Your task to perform on an android device: add a label to a message in the gmail app Image 0: 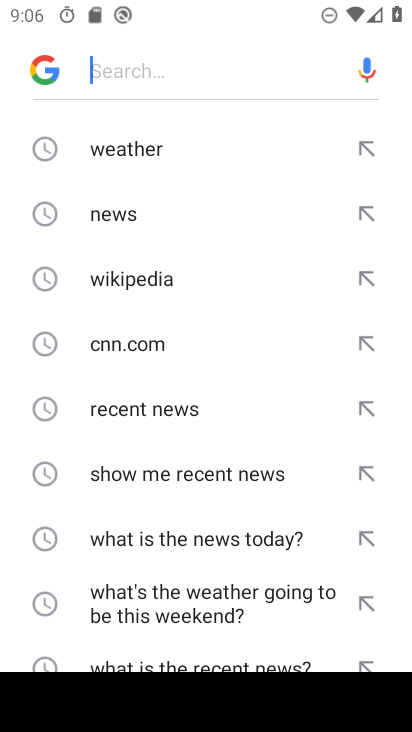
Step 0: press home button
Your task to perform on an android device: add a label to a message in the gmail app Image 1: 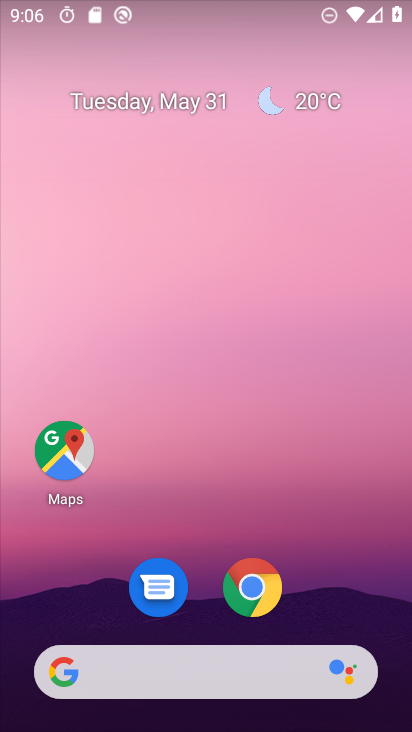
Step 1: drag from (204, 609) to (246, 96)
Your task to perform on an android device: add a label to a message in the gmail app Image 2: 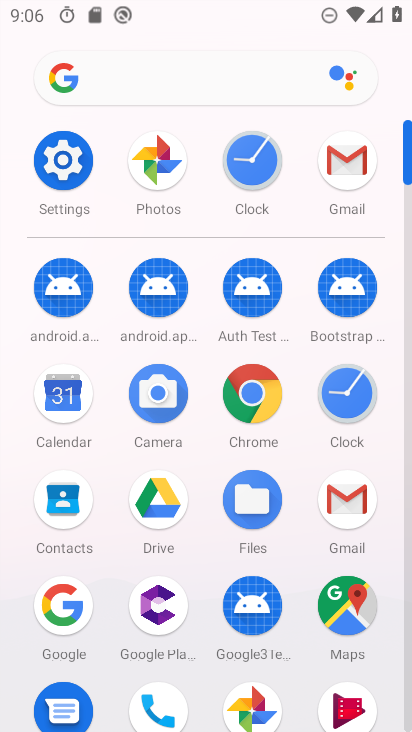
Step 2: click (354, 158)
Your task to perform on an android device: add a label to a message in the gmail app Image 3: 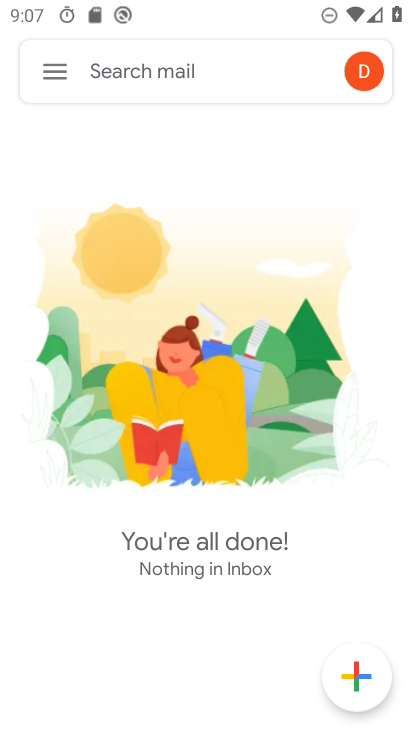
Step 3: task complete